Your task to perform on an android device: turn on improve location accuracy Image 0: 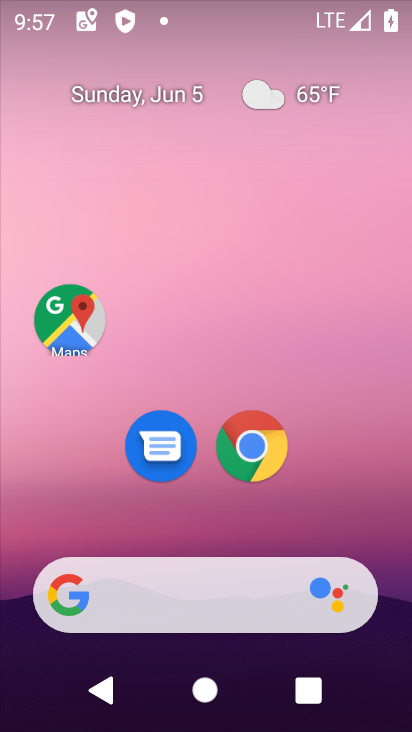
Step 0: drag from (197, 536) to (149, 260)
Your task to perform on an android device: turn on improve location accuracy Image 1: 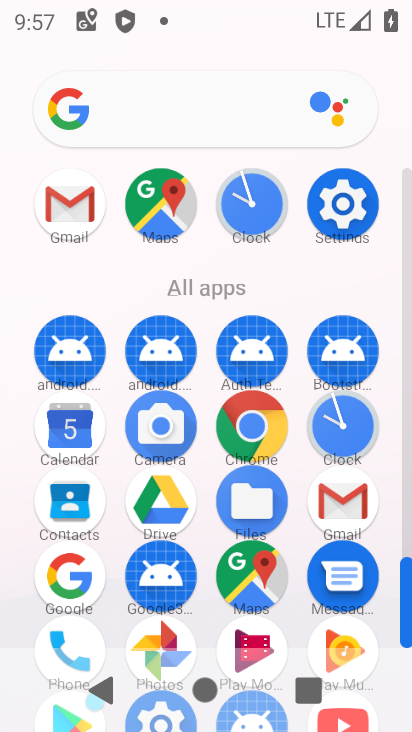
Step 1: click (337, 194)
Your task to perform on an android device: turn on improve location accuracy Image 2: 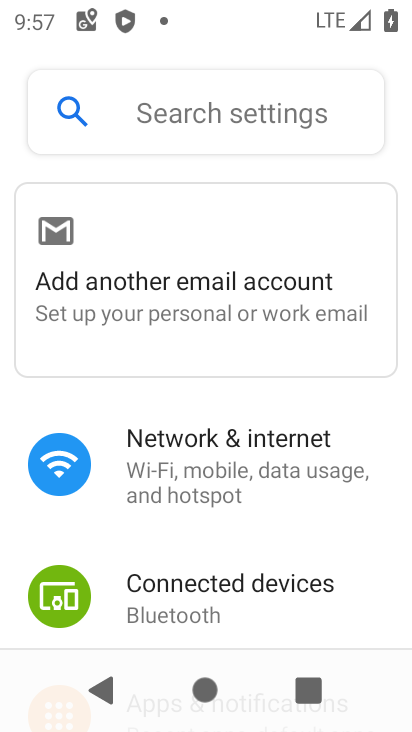
Step 2: drag from (232, 556) to (205, 307)
Your task to perform on an android device: turn on improve location accuracy Image 3: 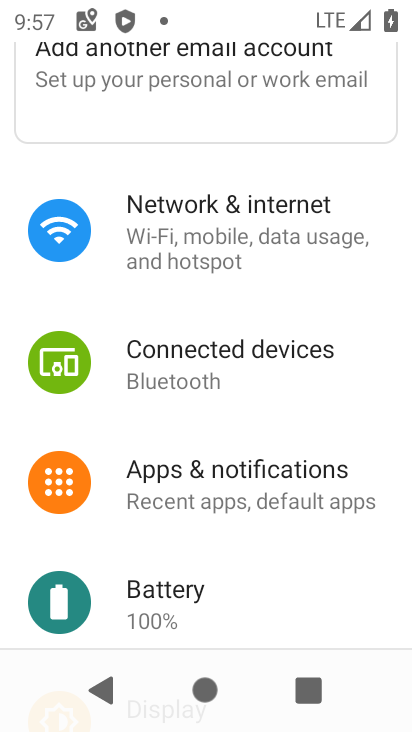
Step 3: drag from (232, 585) to (235, 314)
Your task to perform on an android device: turn on improve location accuracy Image 4: 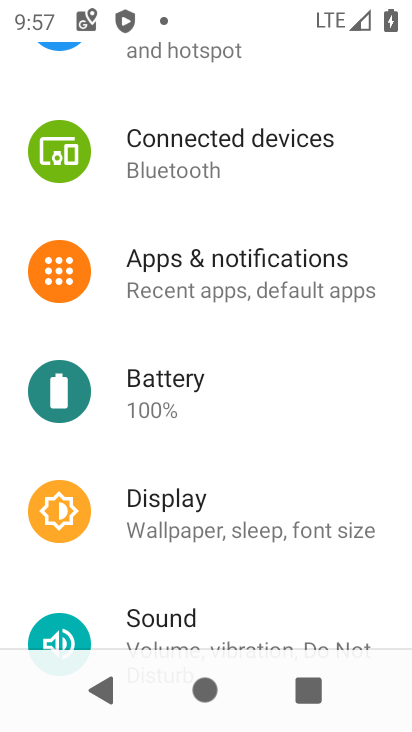
Step 4: drag from (248, 551) to (211, 309)
Your task to perform on an android device: turn on improve location accuracy Image 5: 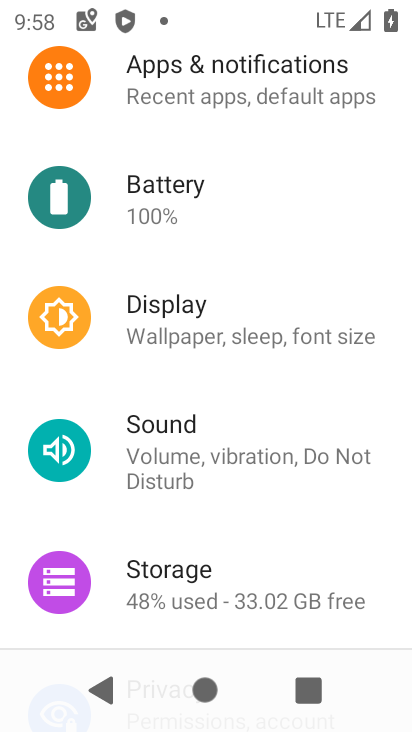
Step 5: drag from (206, 544) to (211, 319)
Your task to perform on an android device: turn on improve location accuracy Image 6: 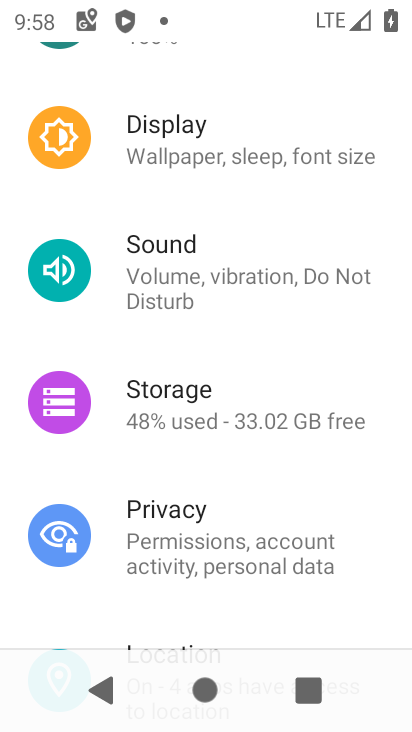
Step 6: drag from (207, 498) to (193, 319)
Your task to perform on an android device: turn on improve location accuracy Image 7: 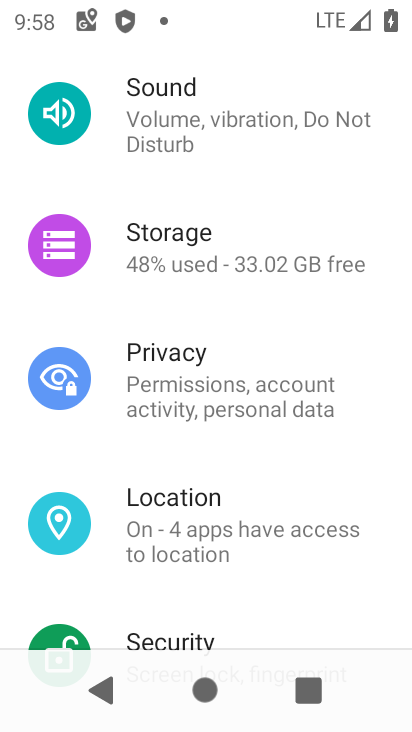
Step 7: click (164, 538)
Your task to perform on an android device: turn on improve location accuracy Image 8: 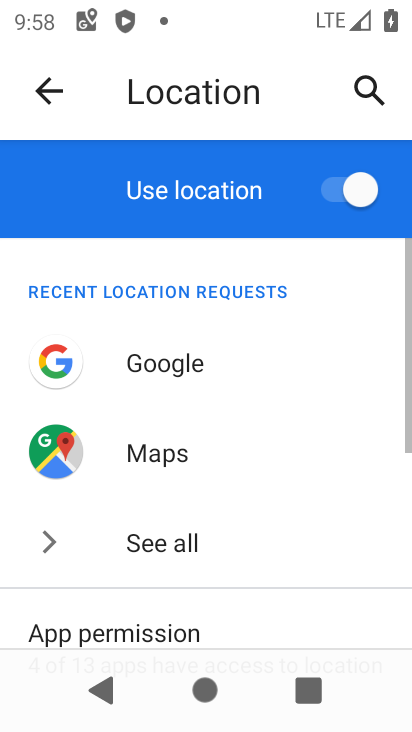
Step 8: drag from (195, 546) to (187, 282)
Your task to perform on an android device: turn on improve location accuracy Image 9: 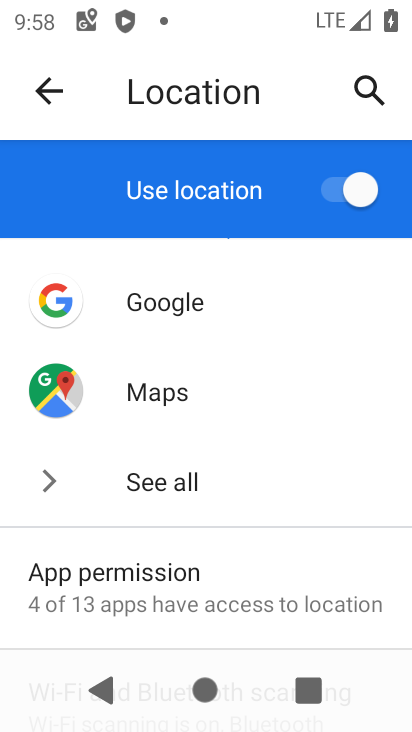
Step 9: drag from (179, 380) to (182, 246)
Your task to perform on an android device: turn on improve location accuracy Image 10: 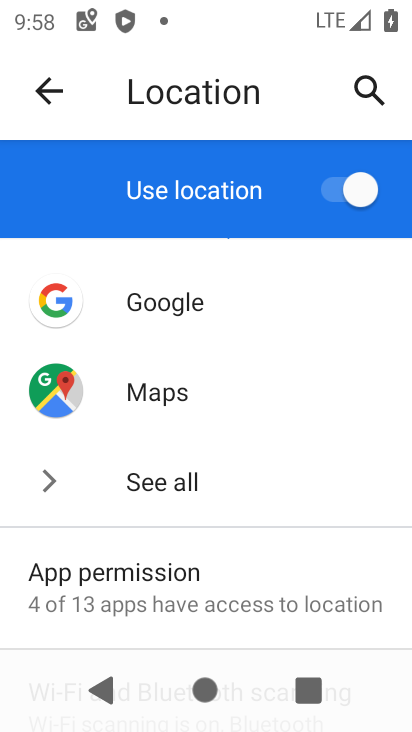
Step 10: drag from (196, 601) to (175, 377)
Your task to perform on an android device: turn on improve location accuracy Image 11: 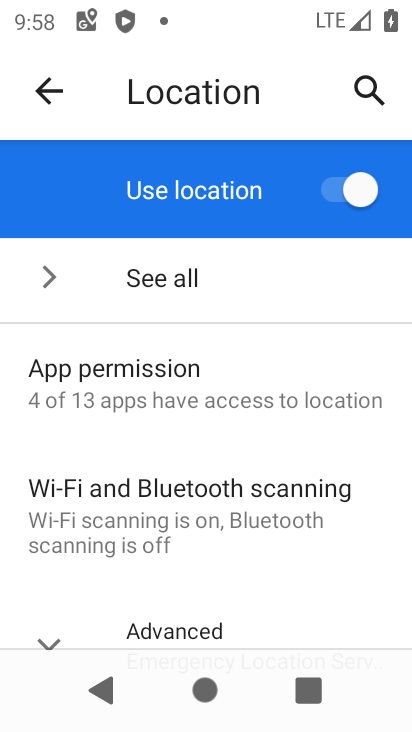
Step 11: drag from (178, 581) to (189, 358)
Your task to perform on an android device: turn on improve location accuracy Image 12: 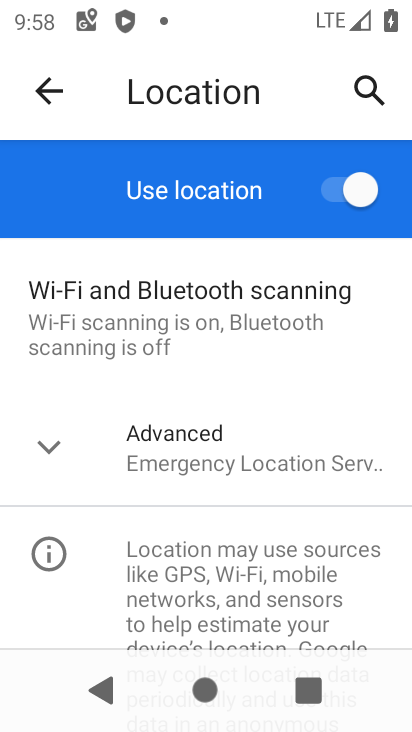
Step 12: click (150, 452)
Your task to perform on an android device: turn on improve location accuracy Image 13: 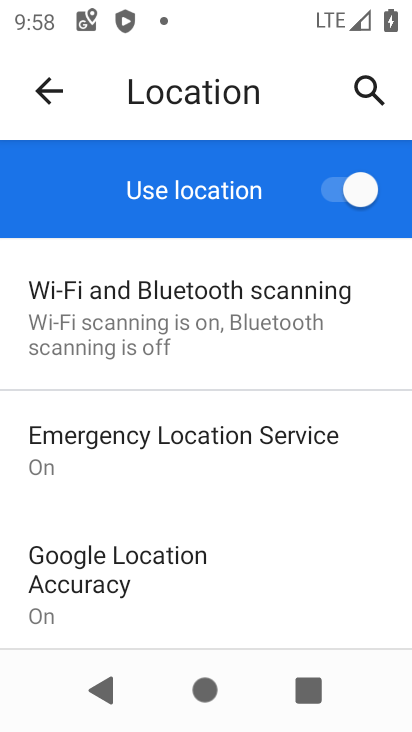
Step 13: drag from (164, 570) to (159, 275)
Your task to perform on an android device: turn on improve location accuracy Image 14: 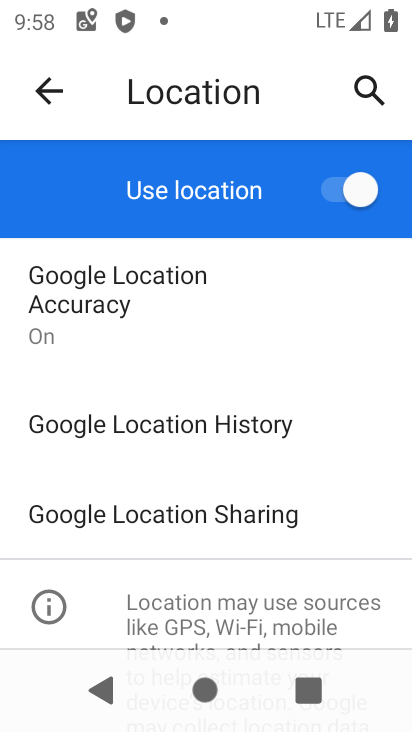
Step 14: click (140, 429)
Your task to perform on an android device: turn on improve location accuracy Image 15: 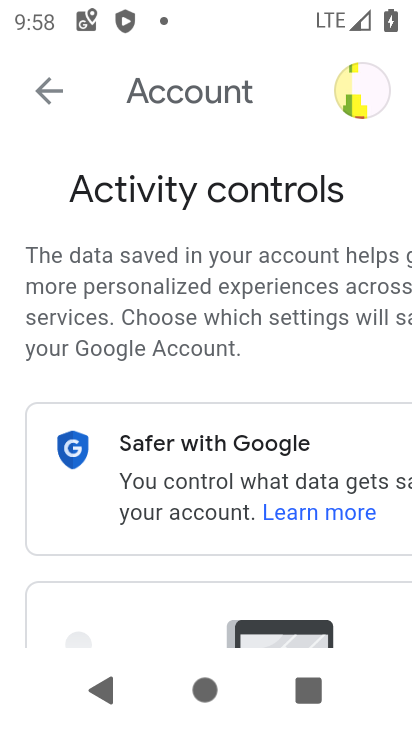
Step 15: drag from (239, 542) to (232, 432)
Your task to perform on an android device: turn on improve location accuracy Image 16: 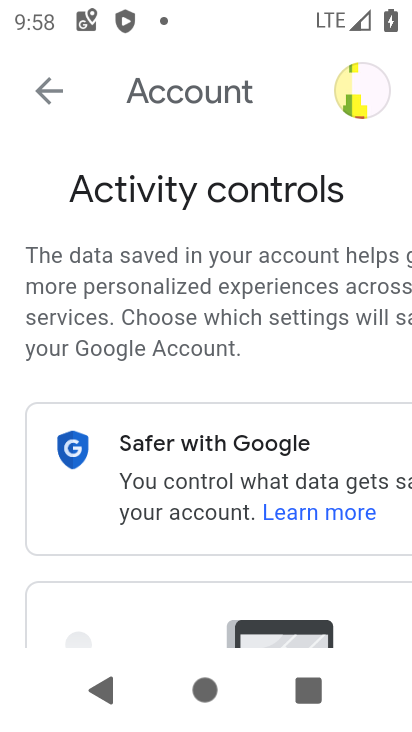
Step 16: drag from (200, 604) to (197, 449)
Your task to perform on an android device: turn on improve location accuracy Image 17: 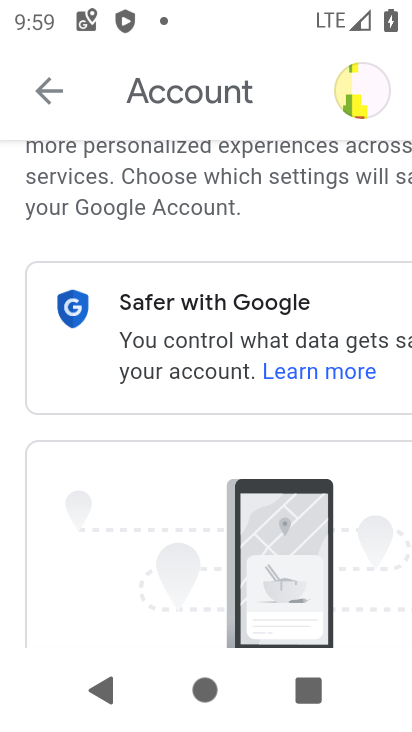
Step 17: drag from (187, 540) to (191, 436)
Your task to perform on an android device: turn on improve location accuracy Image 18: 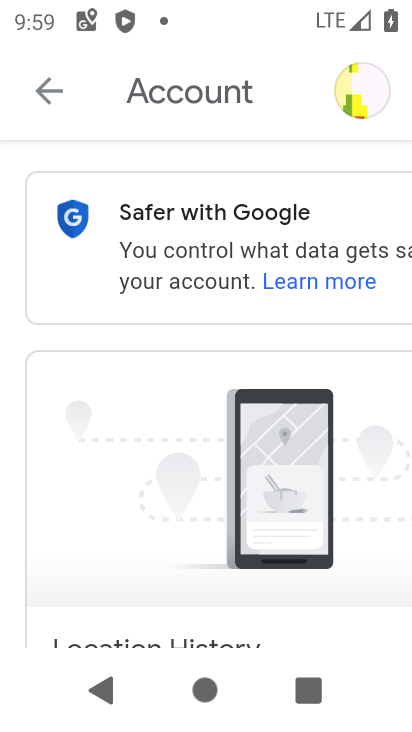
Step 18: drag from (164, 621) to (155, 482)
Your task to perform on an android device: turn on improve location accuracy Image 19: 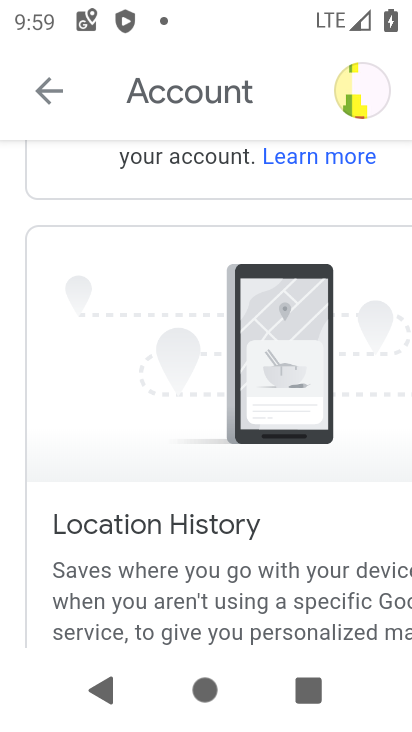
Step 19: drag from (190, 574) to (192, 485)
Your task to perform on an android device: turn on improve location accuracy Image 20: 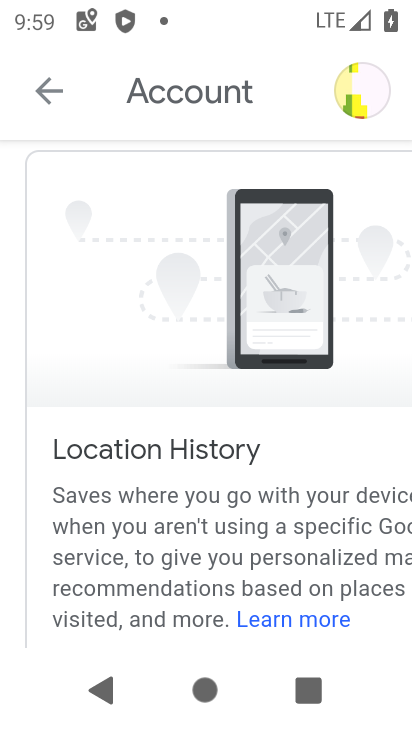
Step 20: drag from (262, 578) to (231, 424)
Your task to perform on an android device: turn on improve location accuracy Image 21: 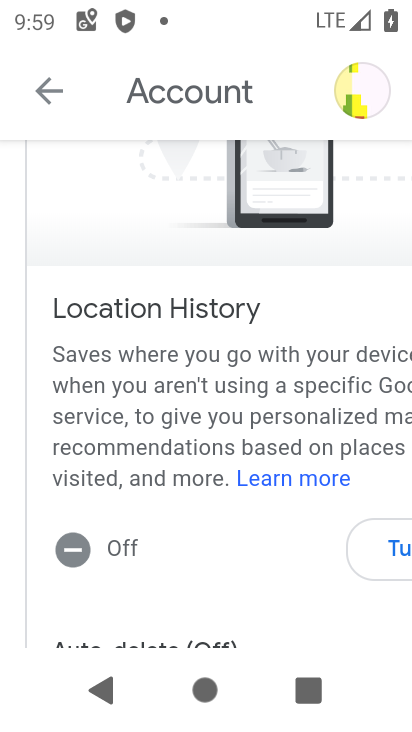
Step 21: drag from (249, 572) to (236, 352)
Your task to perform on an android device: turn on improve location accuracy Image 22: 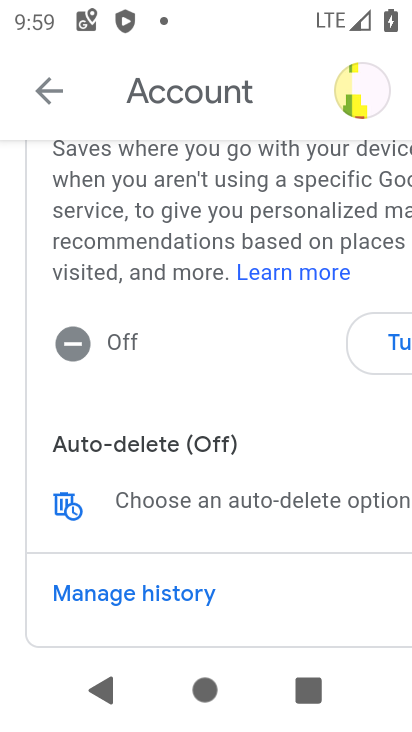
Step 22: click (409, 344)
Your task to perform on an android device: turn on improve location accuracy Image 23: 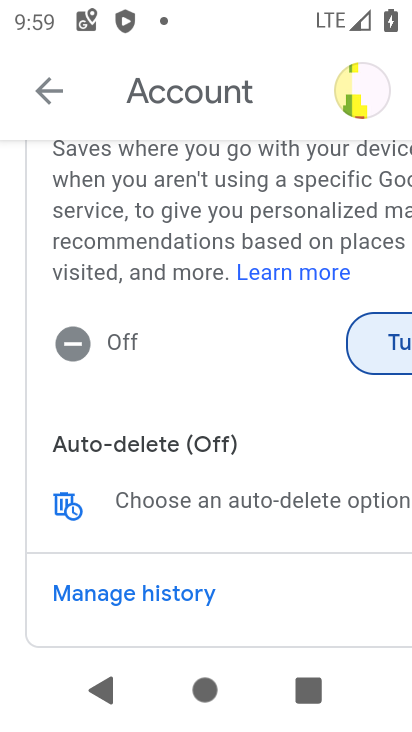
Step 23: click (402, 343)
Your task to perform on an android device: turn on improve location accuracy Image 24: 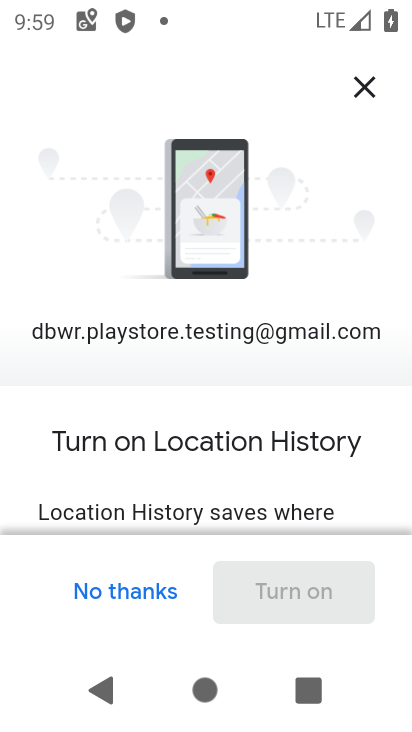
Step 24: drag from (246, 457) to (222, 242)
Your task to perform on an android device: turn on improve location accuracy Image 25: 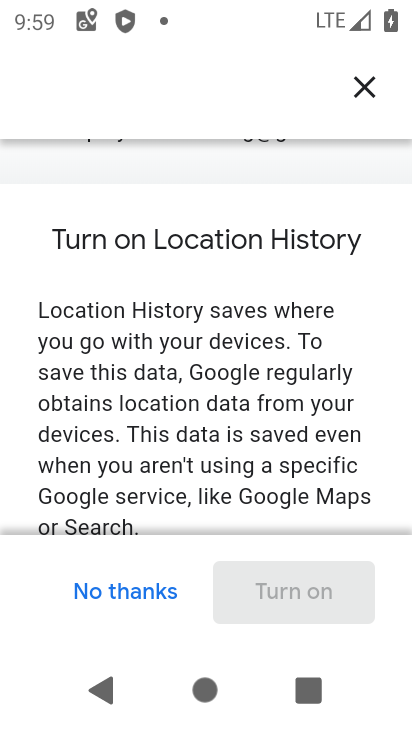
Step 25: drag from (219, 480) to (236, 305)
Your task to perform on an android device: turn on improve location accuracy Image 26: 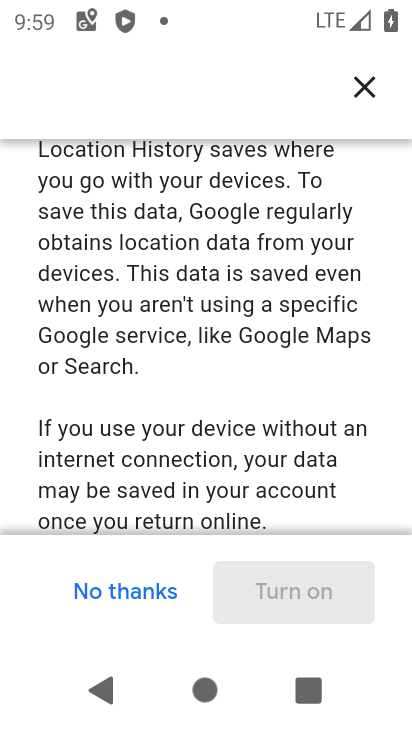
Step 26: drag from (262, 441) to (263, 195)
Your task to perform on an android device: turn on improve location accuracy Image 27: 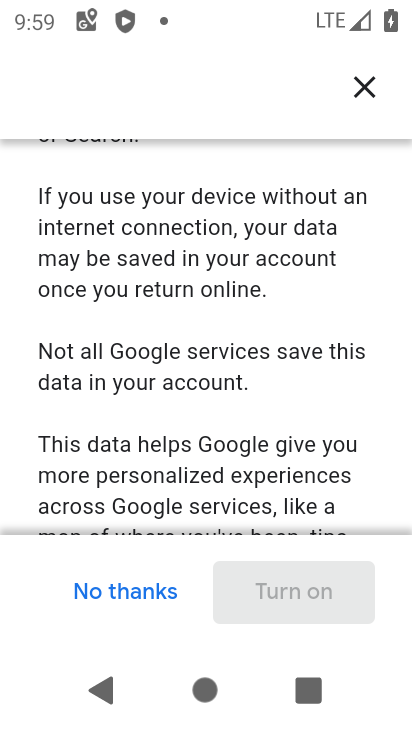
Step 27: drag from (272, 470) to (281, 185)
Your task to perform on an android device: turn on improve location accuracy Image 28: 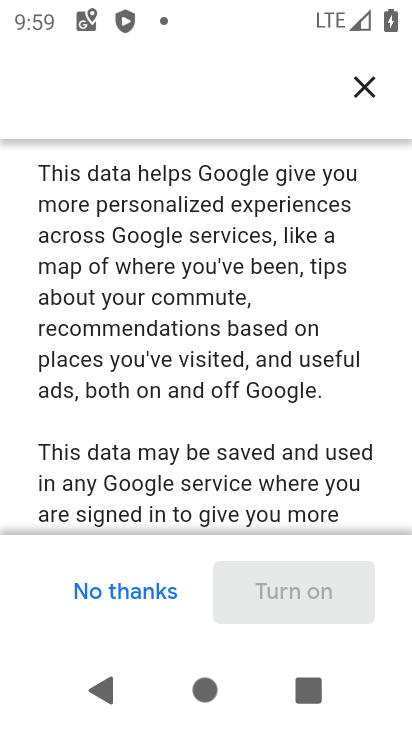
Step 28: drag from (252, 469) to (257, 183)
Your task to perform on an android device: turn on improve location accuracy Image 29: 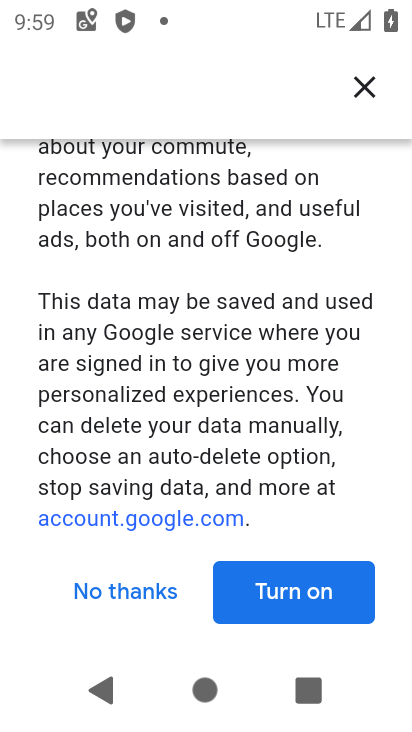
Step 29: click (280, 591)
Your task to perform on an android device: turn on improve location accuracy Image 30: 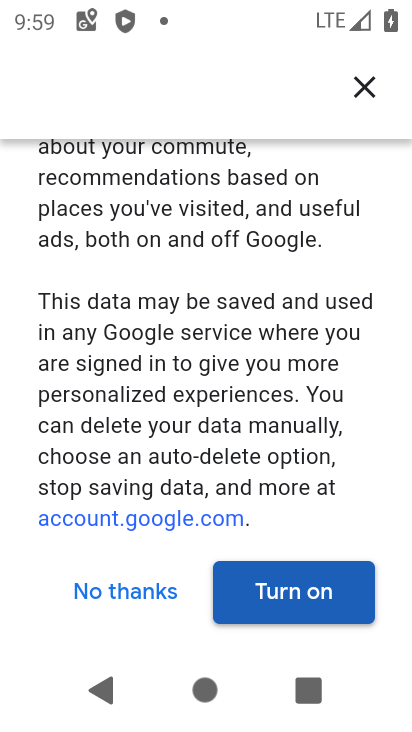
Step 30: click (295, 597)
Your task to perform on an android device: turn on improve location accuracy Image 31: 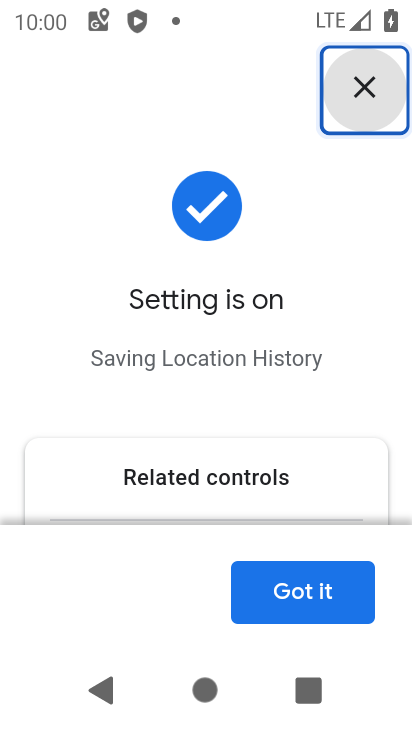
Step 31: click (292, 600)
Your task to perform on an android device: turn on improve location accuracy Image 32: 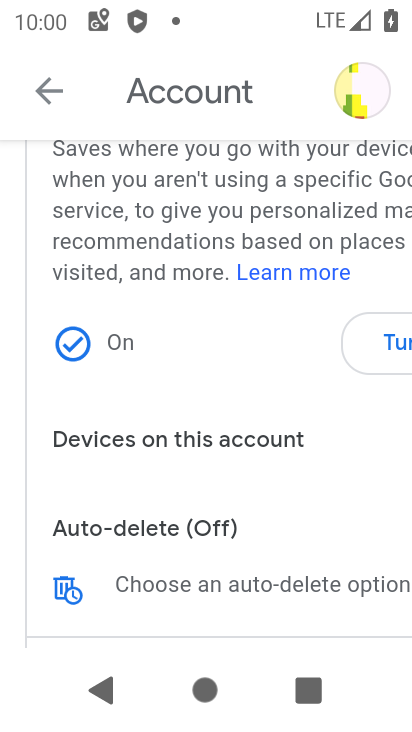
Step 32: task complete